Your task to perform on an android device: Open Google Image 0: 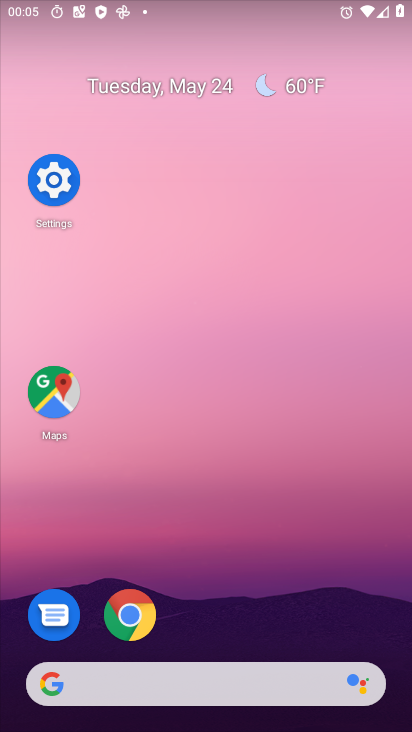
Step 0: drag from (218, 635) to (226, 53)
Your task to perform on an android device: Open Google Image 1: 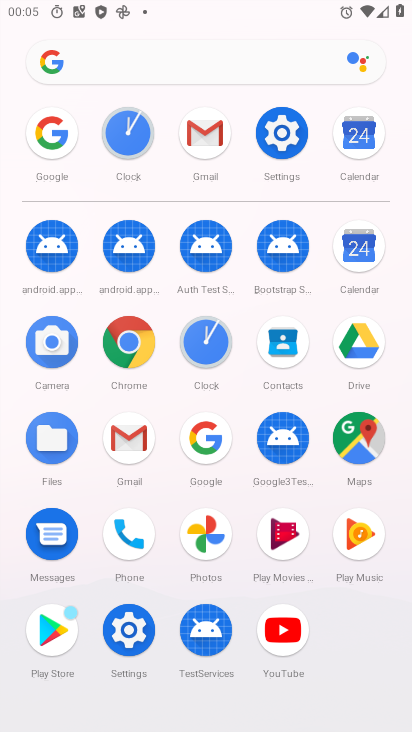
Step 1: click (55, 132)
Your task to perform on an android device: Open Google Image 2: 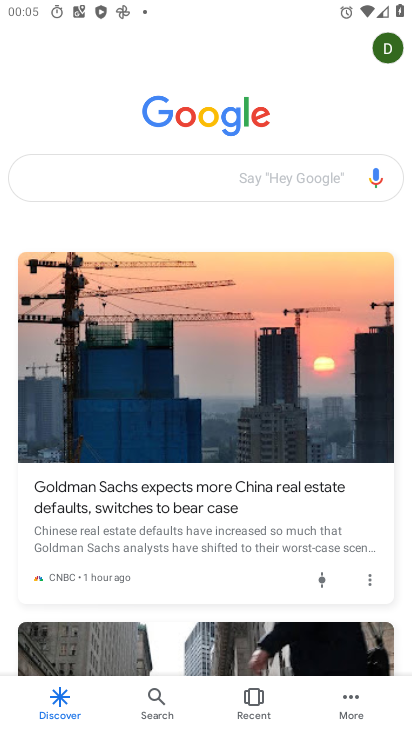
Step 2: task complete